Your task to perform on an android device: create a new album in the google photos Image 0: 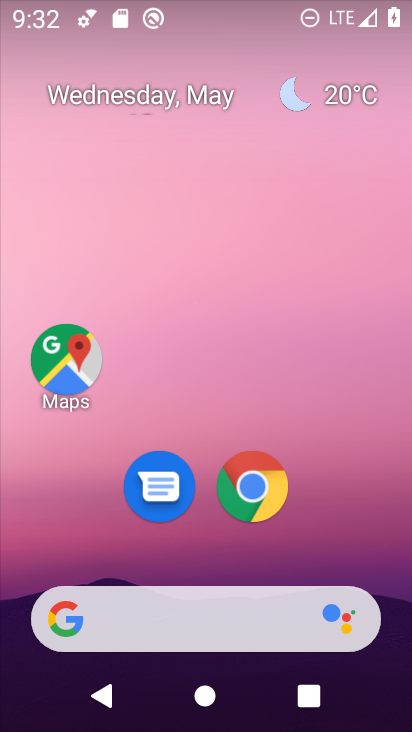
Step 0: drag from (391, 604) to (364, 27)
Your task to perform on an android device: create a new album in the google photos Image 1: 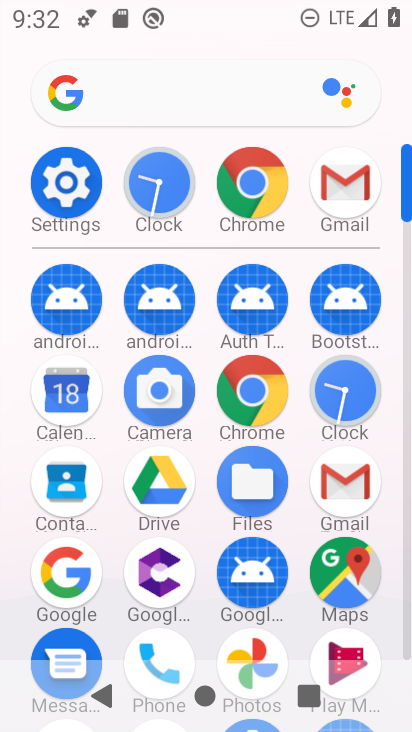
Step 1: click (407, 641)
Your task to perform on an android device: create a new album in the google photos Image 2: 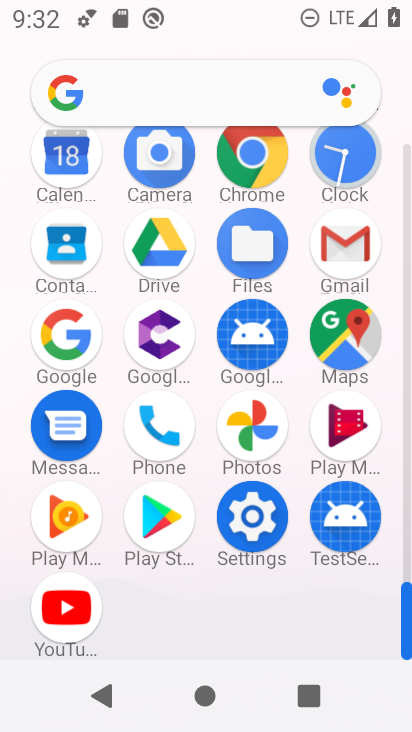
Step 2: click (255, 426)
Your task to perform on an android device: create a new album in the google photos Image 3: 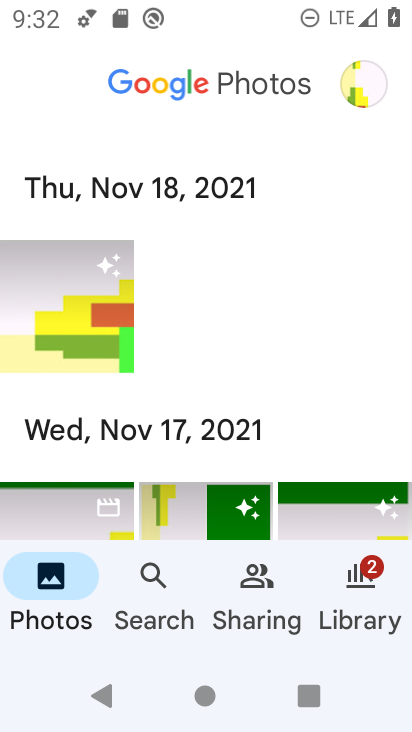
Step 3: drag from (275, 481) to (265, 359)
Your task to perform on an android device: create a new album in the google photos Image 4: 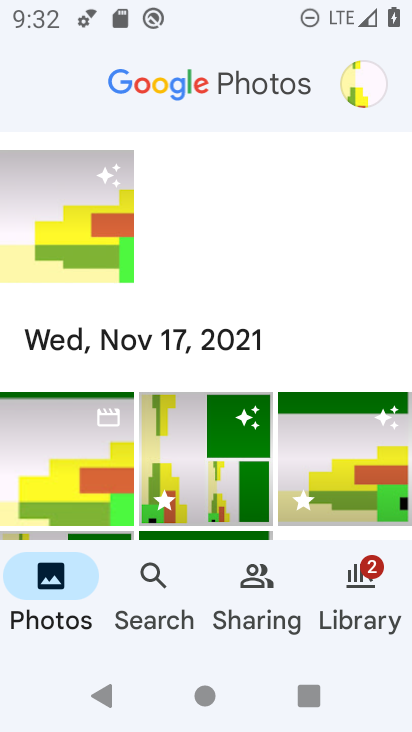
Step 4: click (355, 579)
Your task to perform on an android device: create a new album in the google photos Image 5: 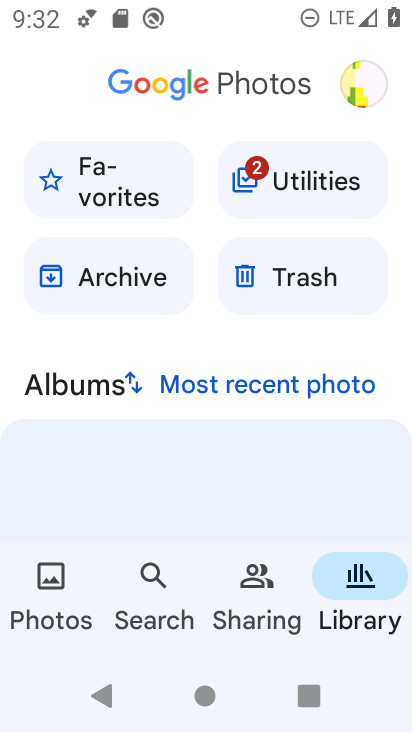
Step 5: drag from (161, 498) to (178, 110)
Your task to perform on an android device: create a new album in the google photos Image 6: 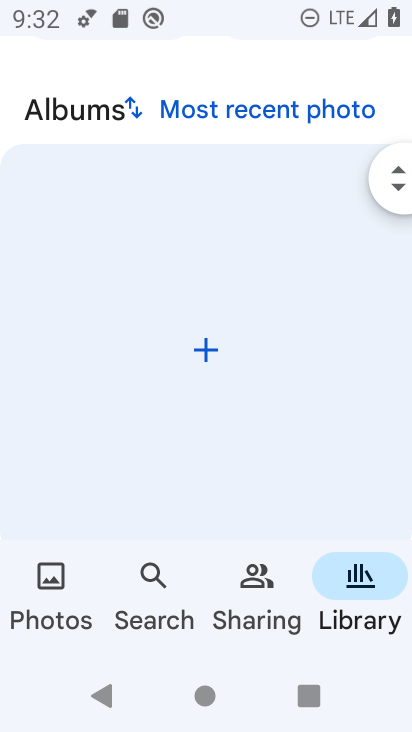
Step 6: click (205, 354)
Your task to perform on an android device: create a new album in the google photos Image 7: 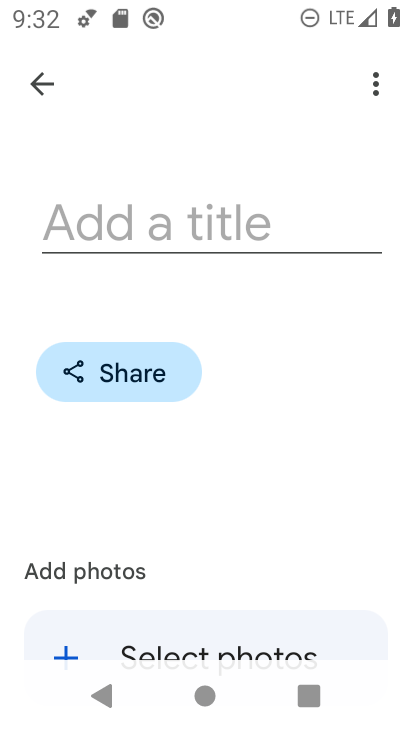
Step 7: click (121, 235)
Your task to perform on an android device: create a new album in the google photos Image 8: 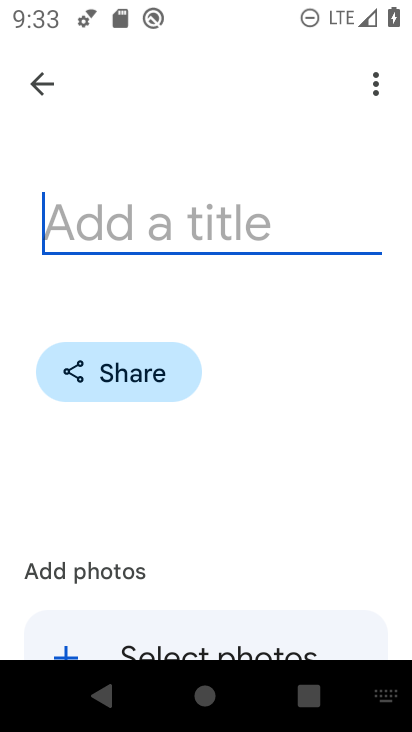
Step 8: type "hdgdfhf"
Your task to perform on an android device: create a new album in the google photos Image 9: 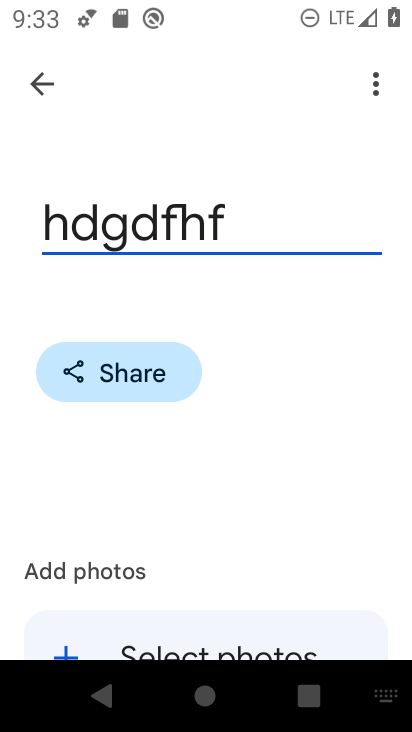
Step 9: drag from (300, 581) to (296, 273)
Your task to perform on an android device: create a new album in the google photos Image 10: 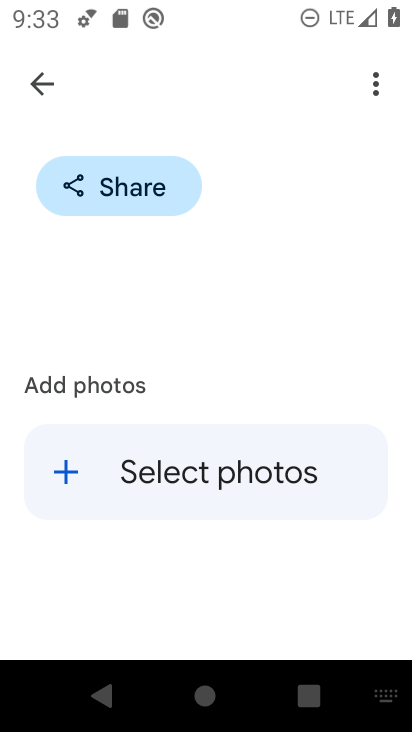
Step 10: click (77, 476)
Your task to perform on an android device: create a new album in the google photos Image 11: 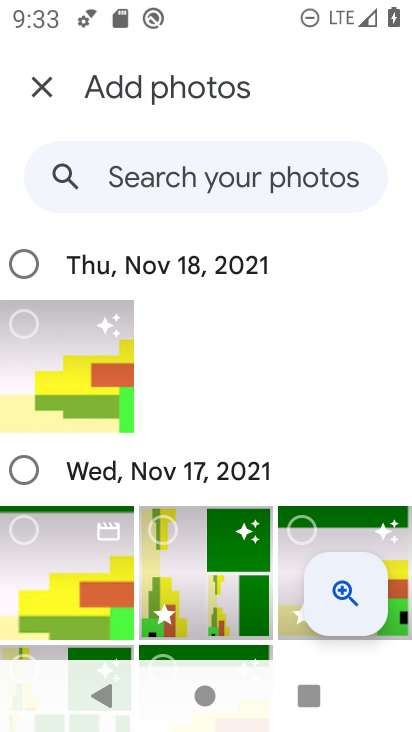
Step 11: click (32, 311)
Your task to perform on an android device: create a new album in the google photos Image 12: 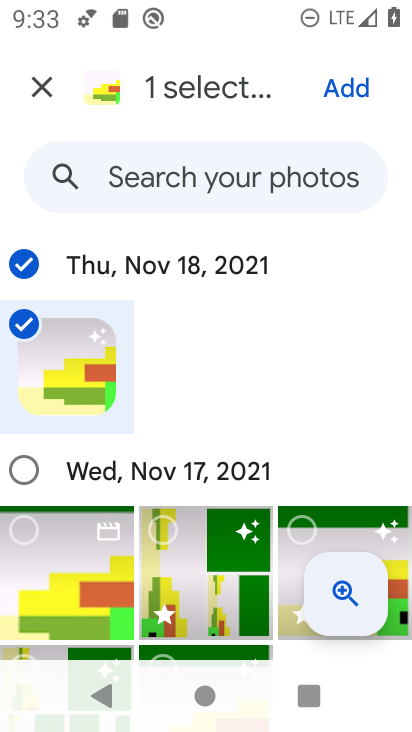
Step 12: click (174, 531)
Your task to perform on an android device: create a new album in the google photos Image 13: 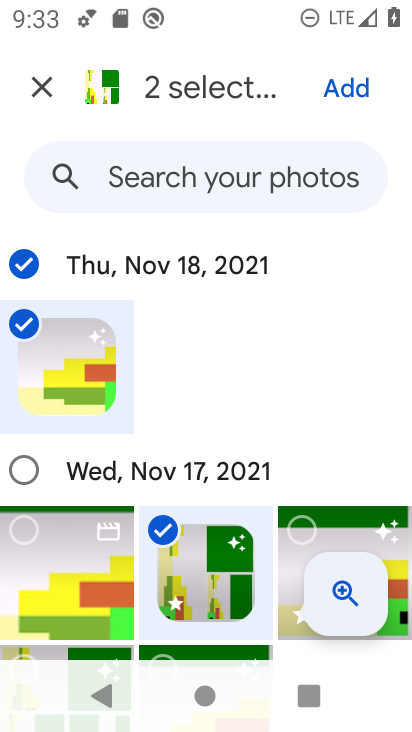
Step 13: click (357, 96)
Your task to perform on an android device: create a new album in the google photos Image 14: 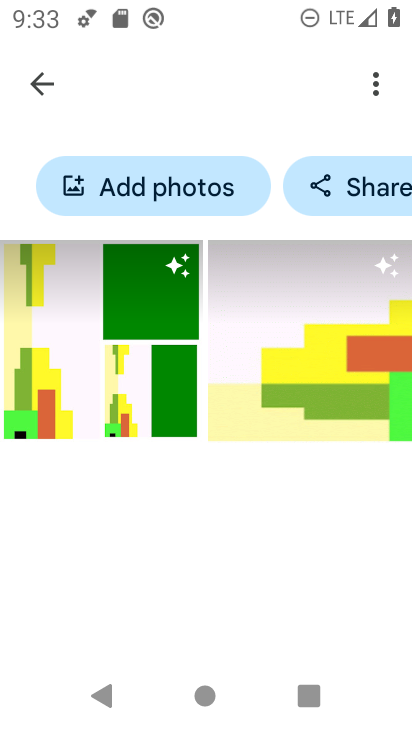
Step 14: task complete